Your task to perform on an android device: toggle improve location accuracy Image 0: 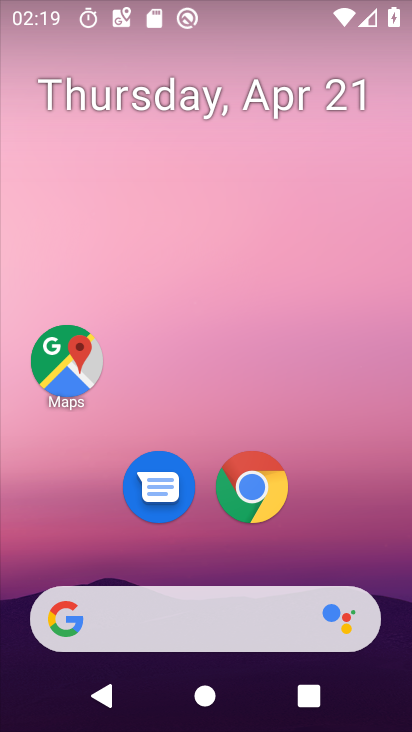
Step 0: drag from (210, 451) to (362, 101)
Your task to perform on an android device: toggle improve location accuracy Image 1: 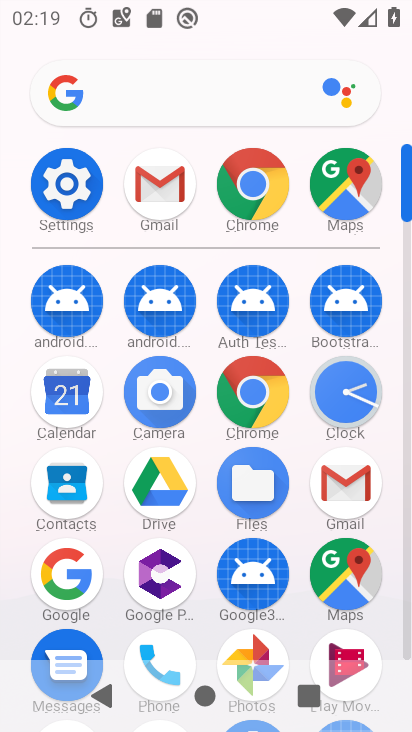
Step 1: click (63, 181)
Your task to perform on an android device: toggle improve location accuracy Image 2: 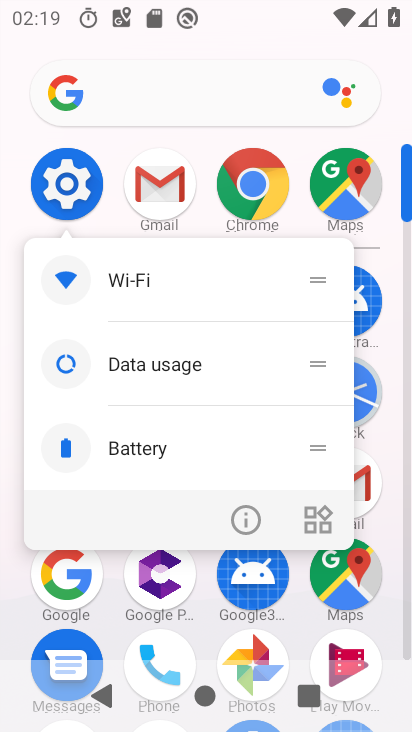
Step 2: click (253, 515)
Your task to perform on an android device: toggle improve location accuracy Image 3: 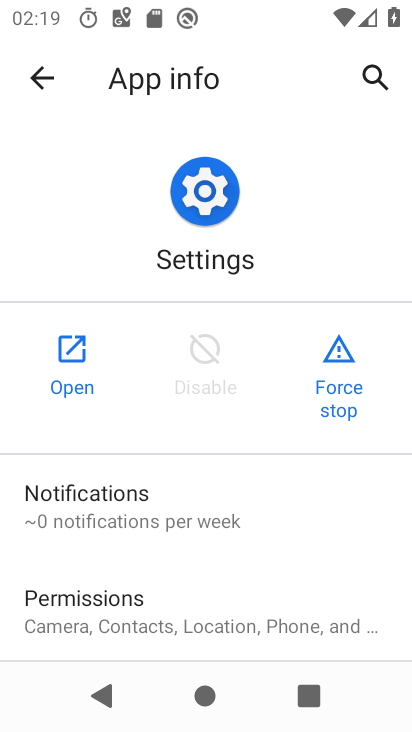
Step 3: click (92, 349)
Your task to perform on an android device: toggle improve location accuracy Image 4: 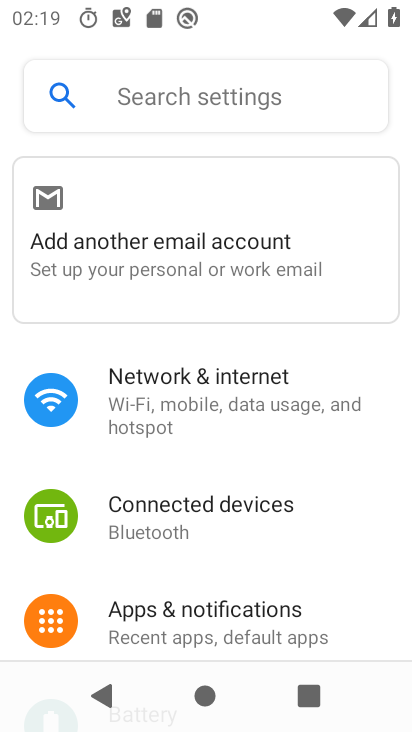
Step 4: drag from (239, 587) to (281, 270)
Your task to perform on an android device: toggle improve location accuracy Image 5: 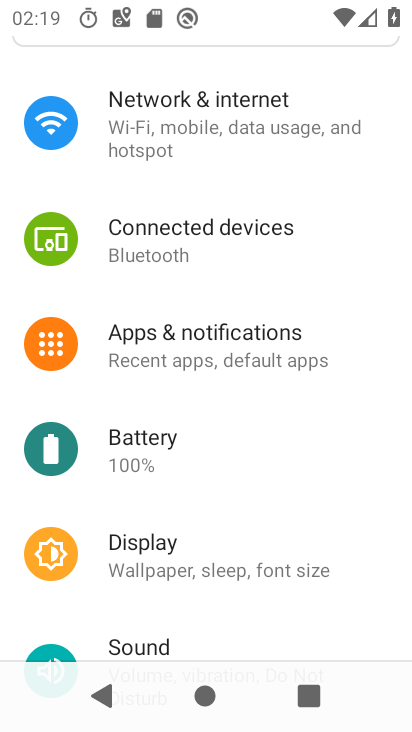
Step 5: drag from (209, 545) to (340, 182)
Your task to perform on an android device: toggle improve location accuracy Image 6: 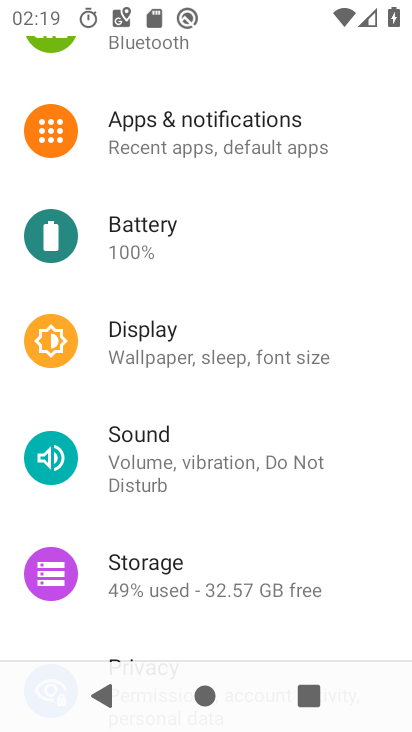
Step 6: drag from (222, 573) to (254, 7)
Your task to perform on an android device: toggle improve location accuracy Image 7: 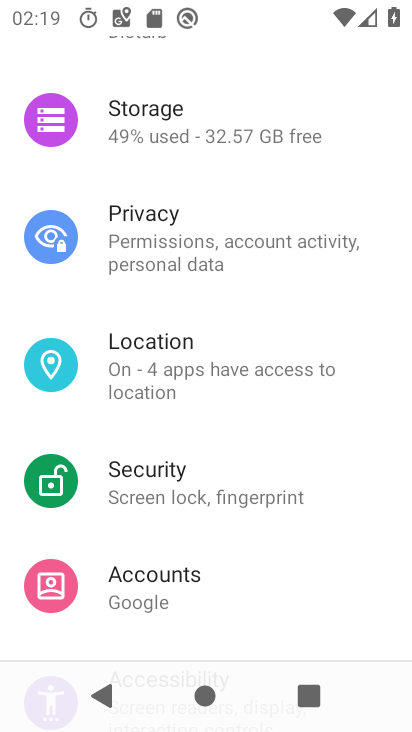
Step 7: drag from (213, 627) to (238, 392)
Your task to perform on an android device: toggle improve location accuracy Image 8: 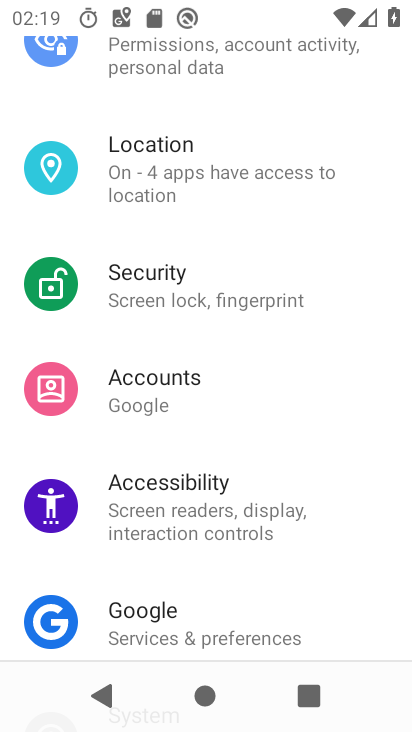
Step 8: click (161, 148)
Your task to perform on an android device: toggle improve location accuracy Image 9: 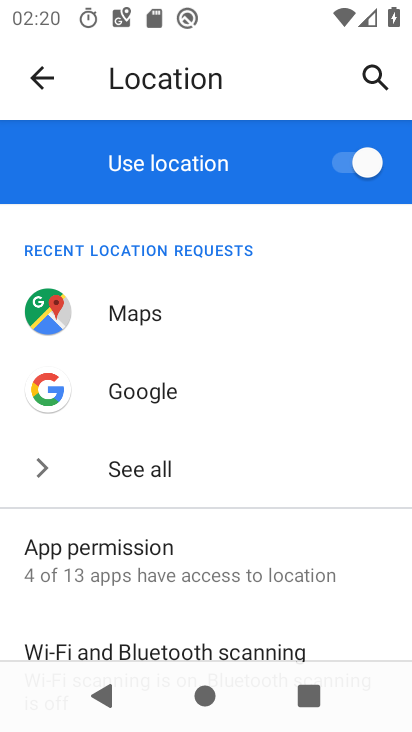
Step 9: drag from (186, 593) to (276, 299)
Your task to perform on an android device: toggle improve location accuracy Image 10: 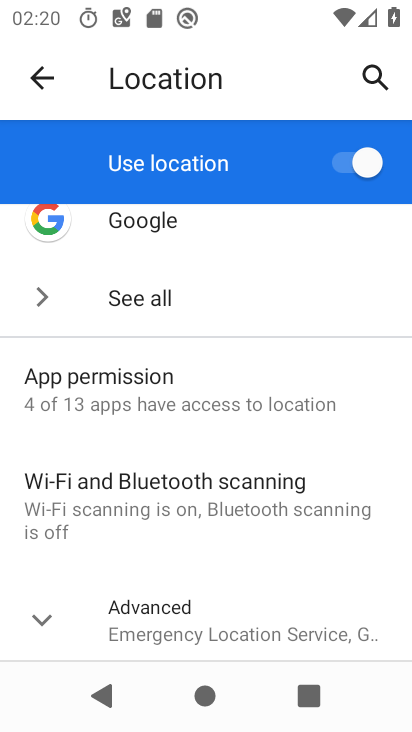
Step 10: click (161, 612)
Your task to perform on an android device: toggle improve location accuracy Image 11: 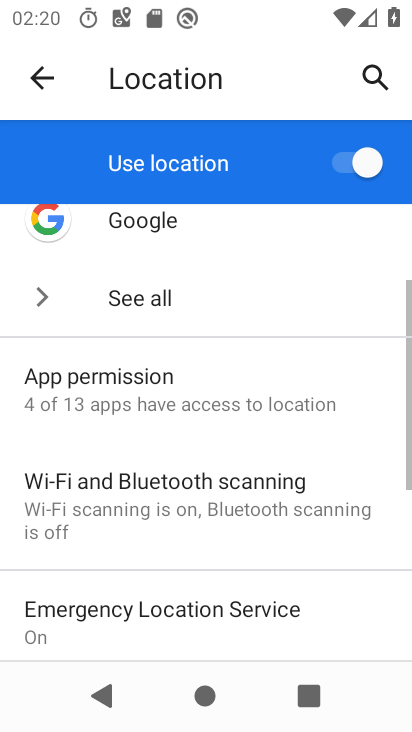
Step 11: drag from (161, 612) to (305, 92)
Your task to perform on an android device: toggle improve location accuracy Image 12: 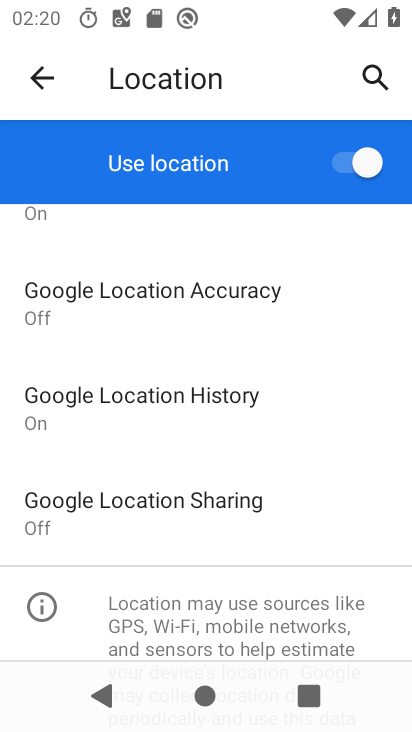
Step 12: click (184, 306)
Your task to perform on an android device: toggle improve location accuracy Image 13: 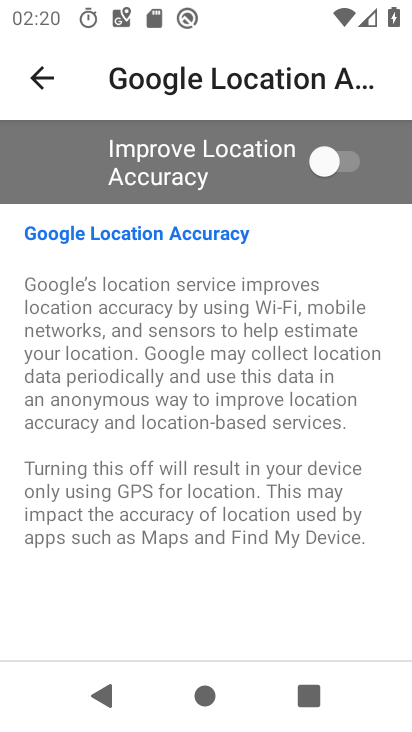
Step 13: click (332, 148)
Your task to perform on an android device: toggle improve location accuracy Image 14: 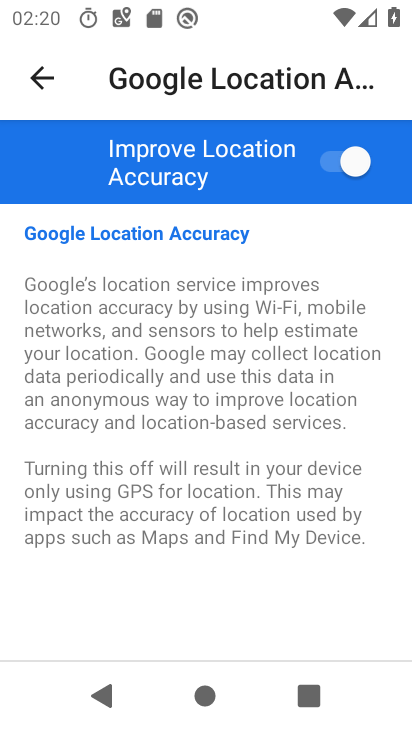
Step 14: task complete